Your task to perform on an android device: install app "Viber Messenger" Image 0: 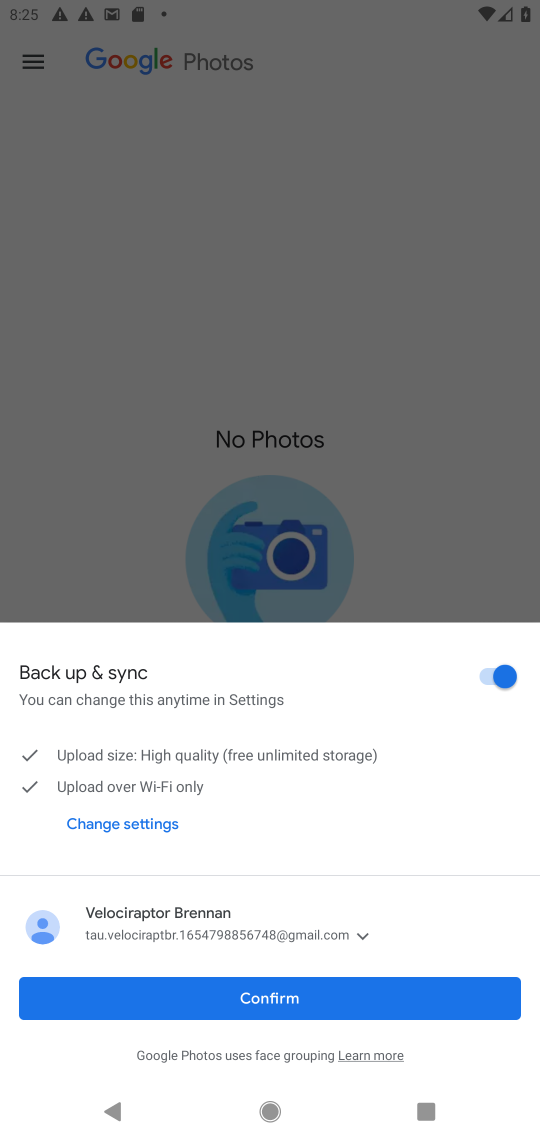
Step 0: press home button
Your task to perform on an android device: install app "Viber Messenger" Image 1: 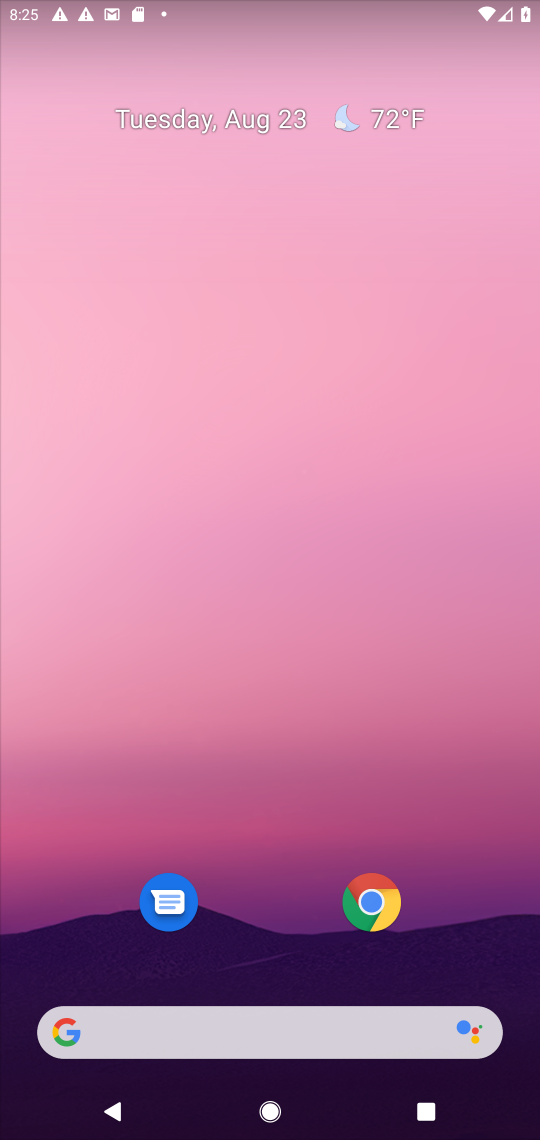
Step 1: drag from (256, 641) to (295, 137)
Your task to perform on an android device: install app "Viber Messenger" Image 2: 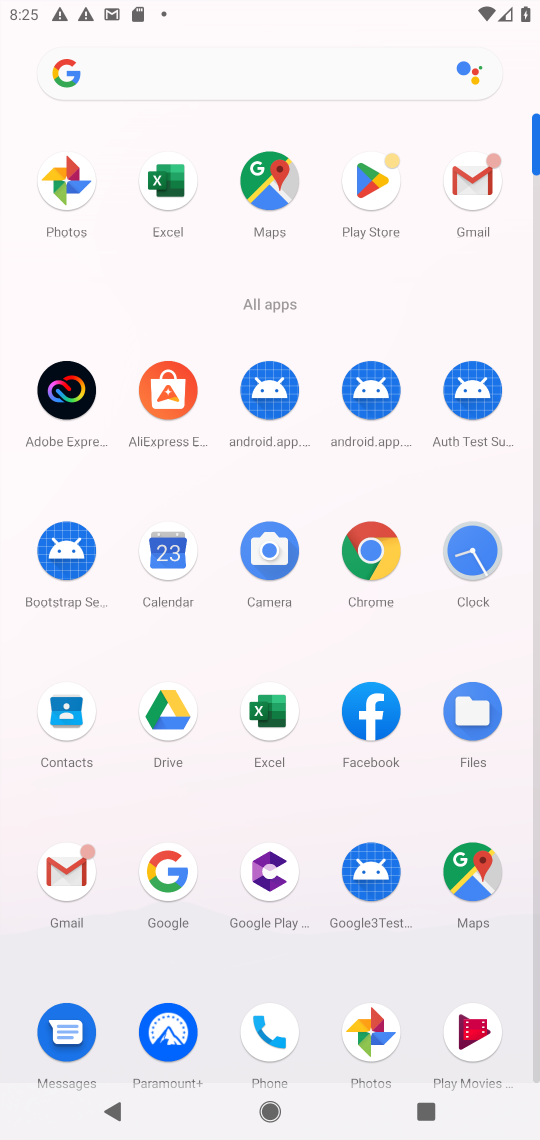
Step 2: click (384, 185)
Your task to perform on an android device: install app "Viber Messenger" Image 3: 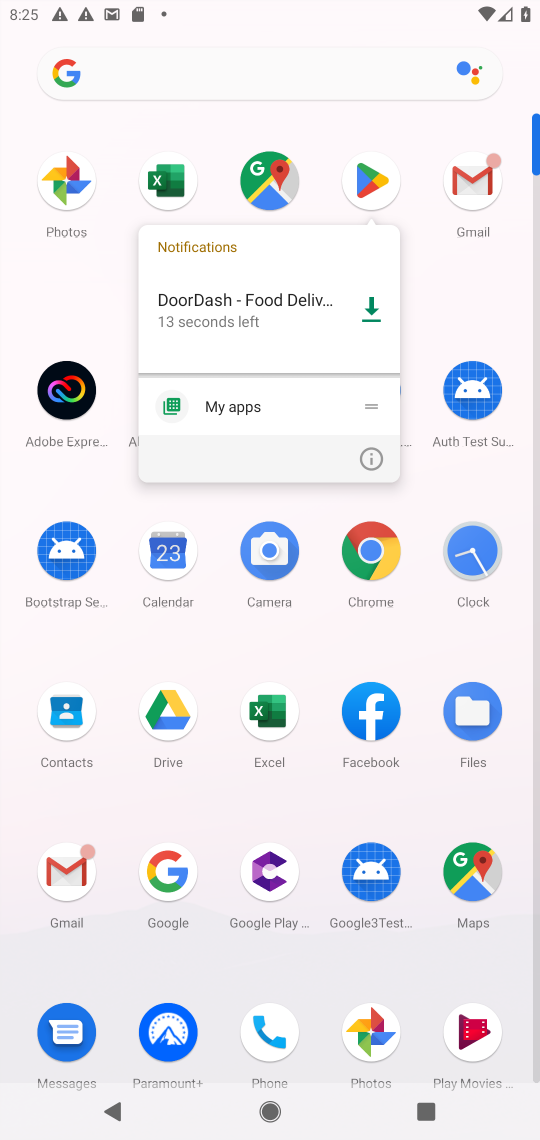
Step 3: click (384, 185)
Your task to perform on an android device: install app "Viber Messenger" Image 4: 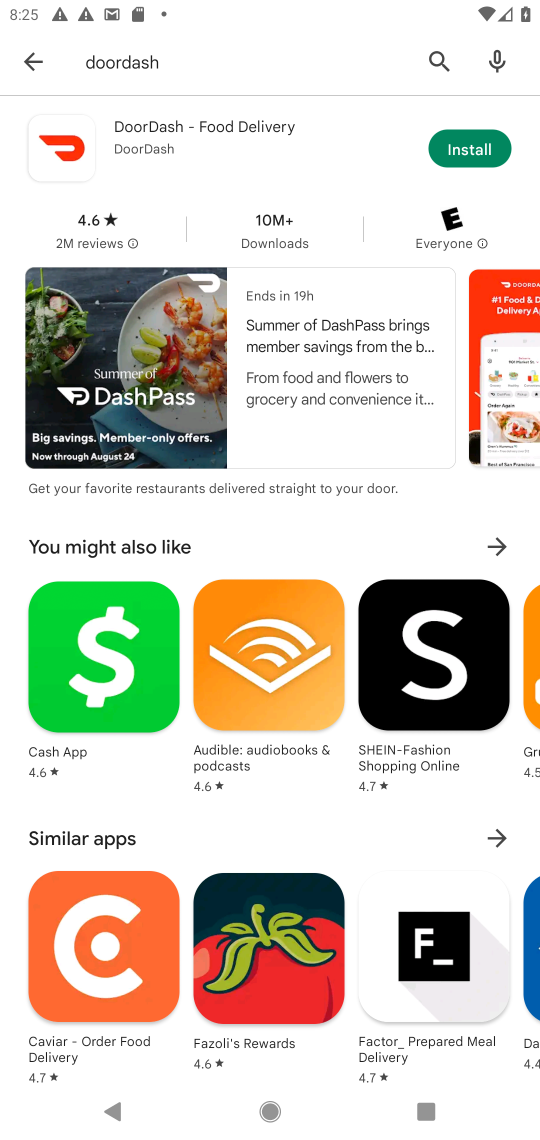
Step 4: click (441, 67)
Your task to perform on an android device: install app "Viber Messenger" Image 5: 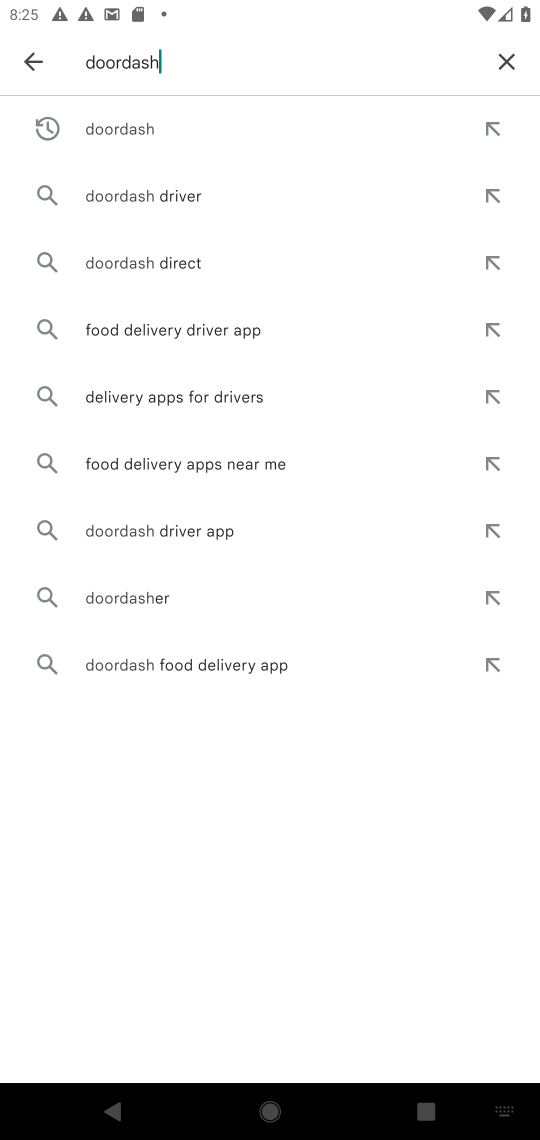
Step 5: click (500, 66)
Your task to perform on an android device: install app "Viber Messenger" Image 6: 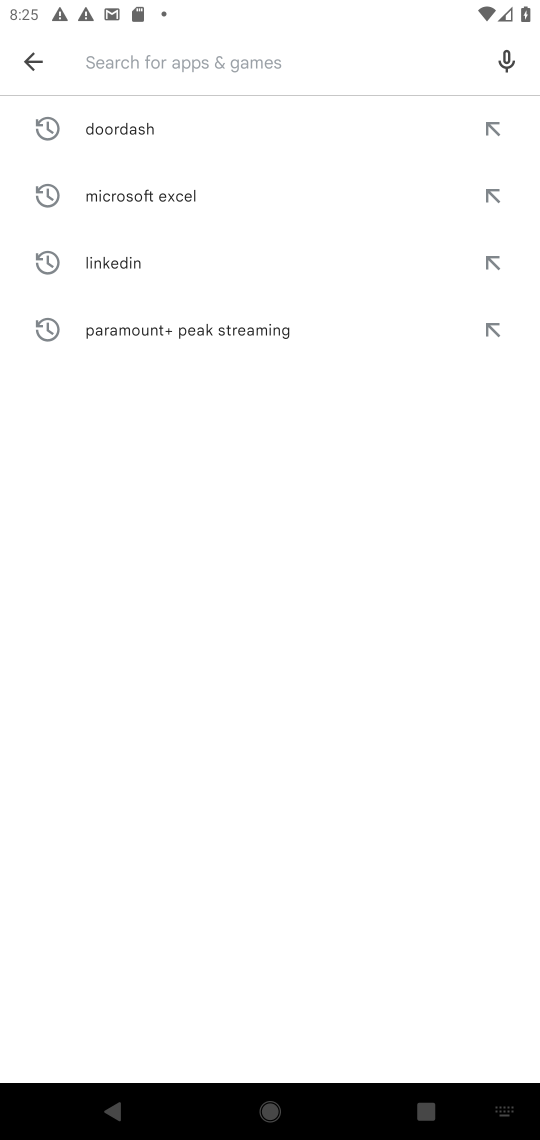
Step 6: type "viber messenger"
Your task to perform on an android device: install app "Viber Messenger" Image 7: 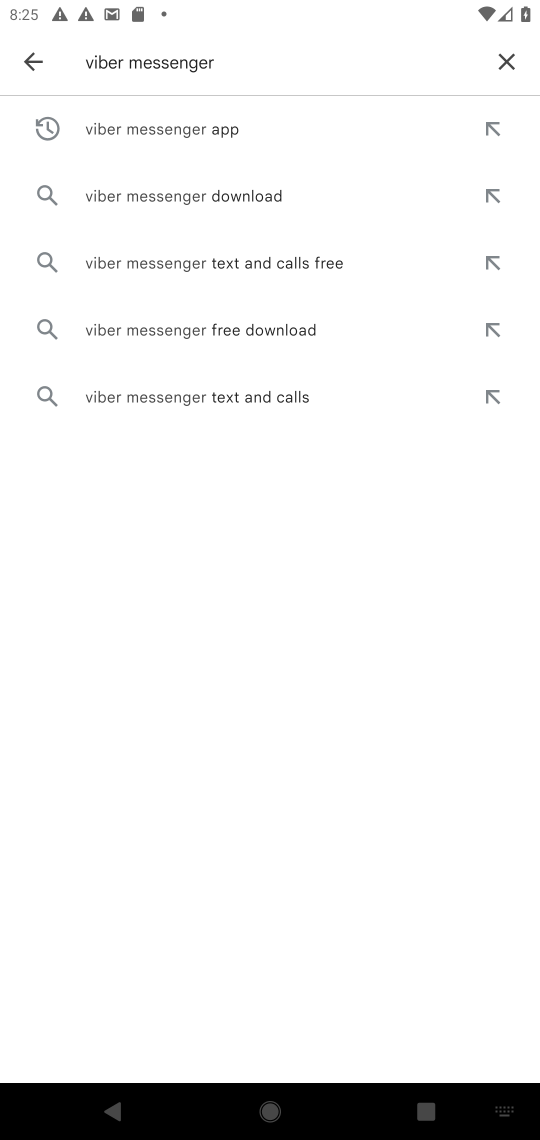
Step 7: click (240, 122)
Your task to perform on an android device: install app "Viber Messenger" Image 8: 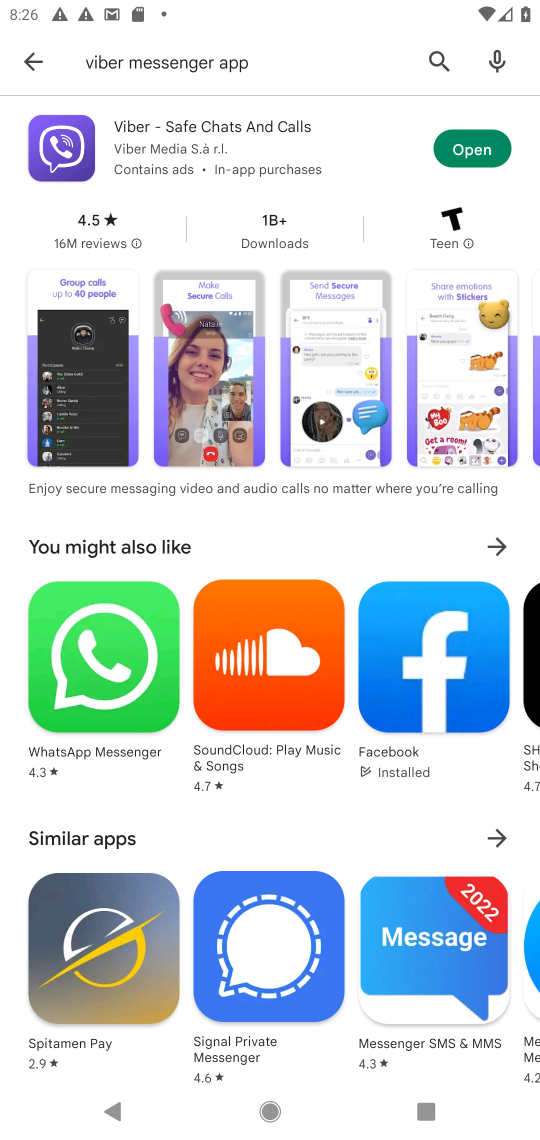
Step 8: task complete